Your task to perform on an android device: toggle priority inbox in the gmail app Image 0: 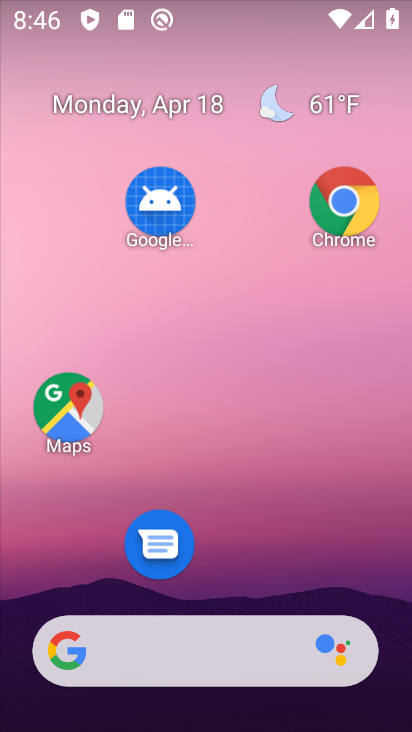
Step 0: drag from (249, 600) to (225, 2)
Your task to perform on an android device: toggle priority inbox in the gmail app Image 1: 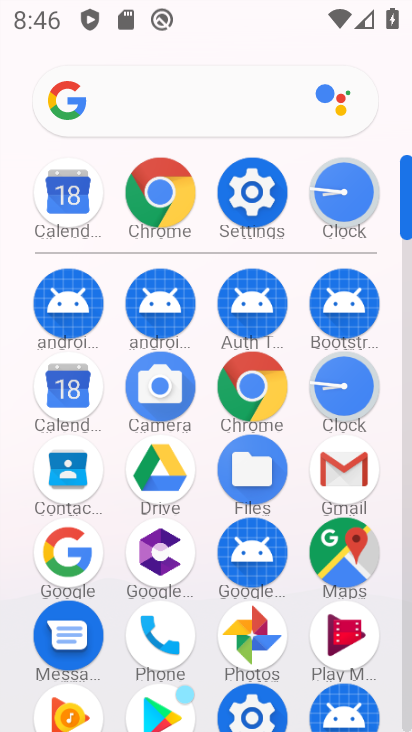
Step 1: click (338, 481)
Your task to perform on an android device: toggle priority inbox in the gmail app Image 2: 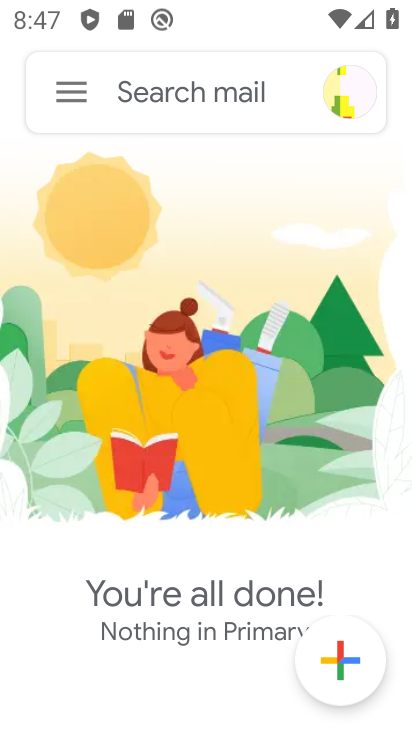
Step 2: click (60, 85)
Your task to perform on an android device: toggle priority inbox in the gmail app Image 3: 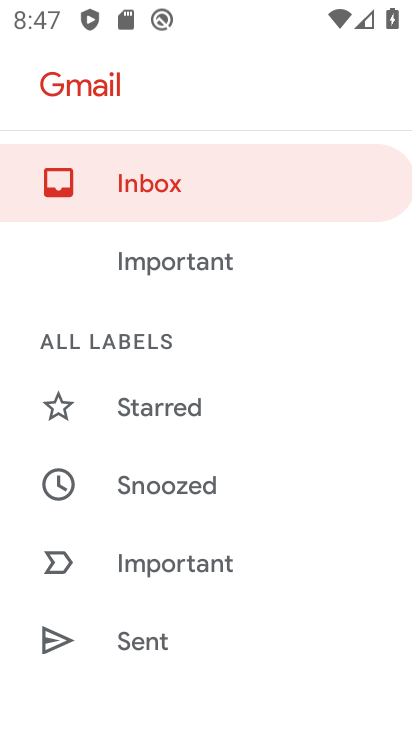
Step 3: drag from (180, 590) to (152, 112)
Your task to perform on an android device: toggle priority inbox in the gmail app Image 4: 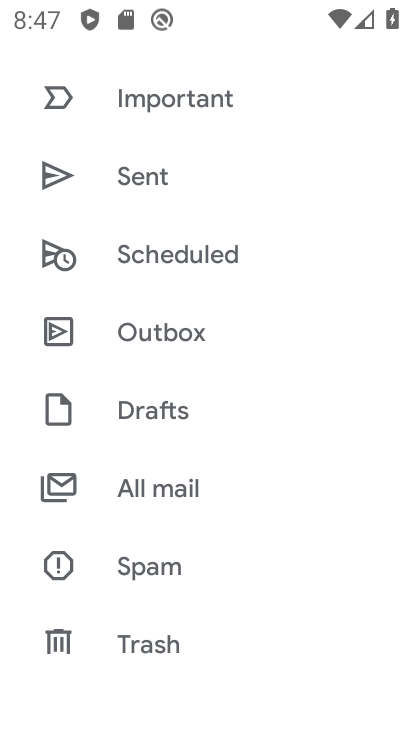
Step 4: drag from (183, 594) to (128, 143)
Your task to perform on an android device: toggle priority inbox in the gmail app Image 5: 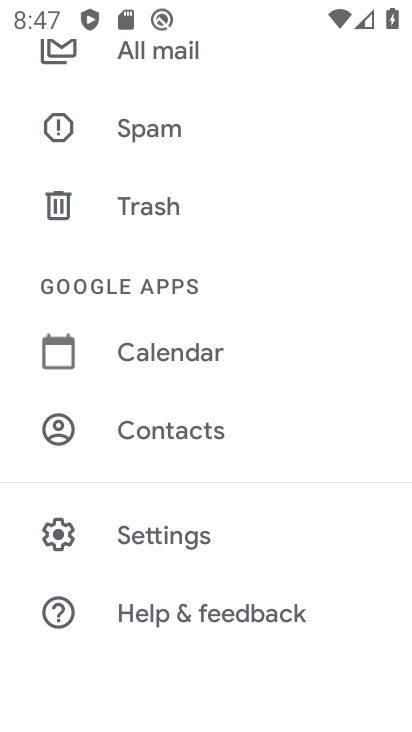
Step 5: click (146, 544)
Your task to perform on an android device: toggle priority inbox in the gmail app Image 6: 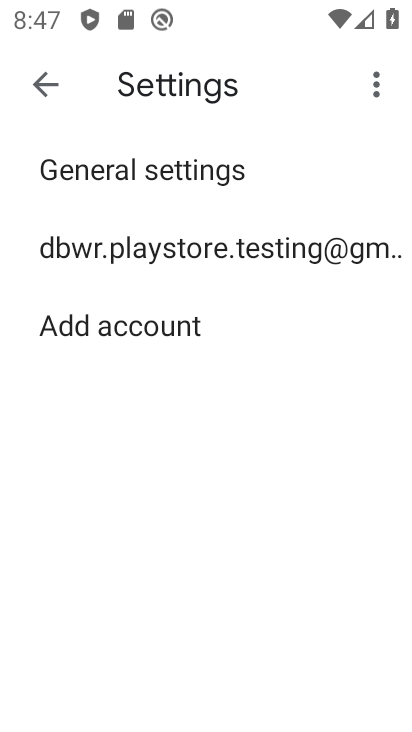
Step 6: click (120, 235)
Your task to perform on an android device: toggle priority inbox in the gmail app Image 7: 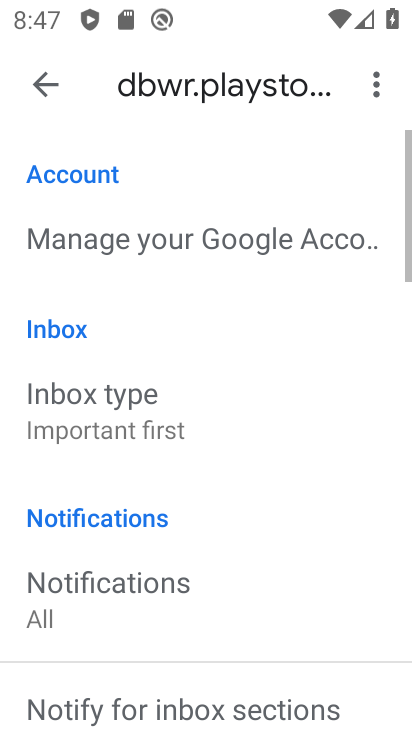
Step 7: click (141, 407)
Your task to perform on an android device: toggle priority inbox in the gmail app Image 8: 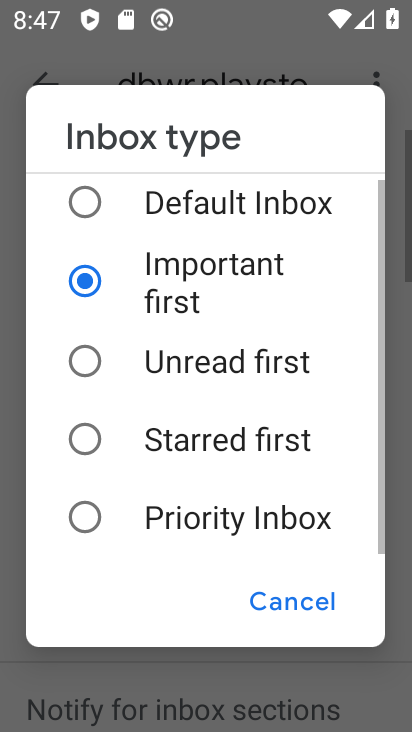
Step 8: click (189, 535)
Your task to perform on an android device: toggle priority inbox in the gmail app Image 9: 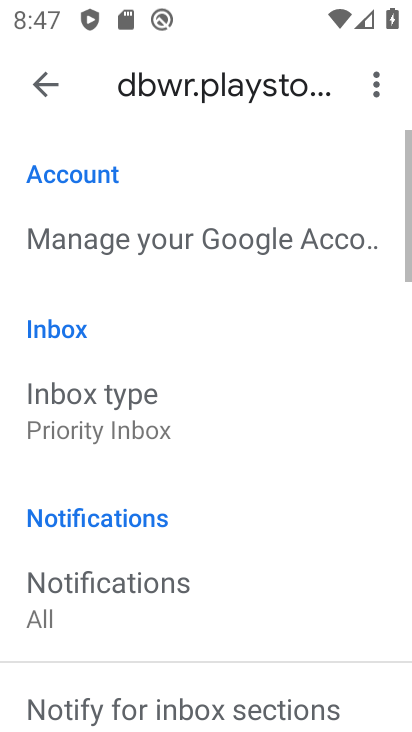
Step 9: task complete